Your task to perform on an android device: open device folders in google photos Image 0: 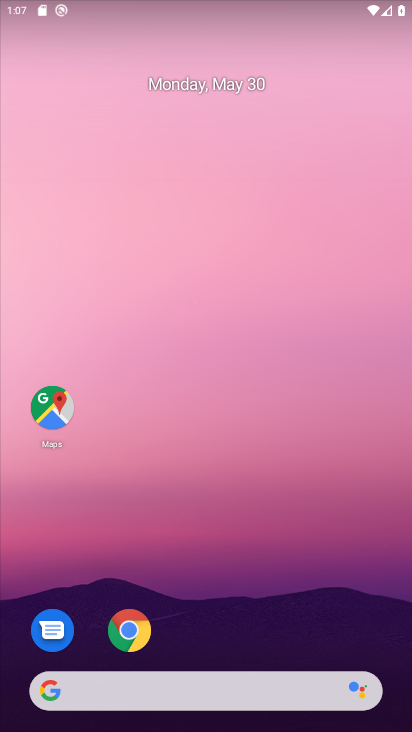
Step 0: press home button
Your task to perform on an android device: open device folders in google photos Image 1: 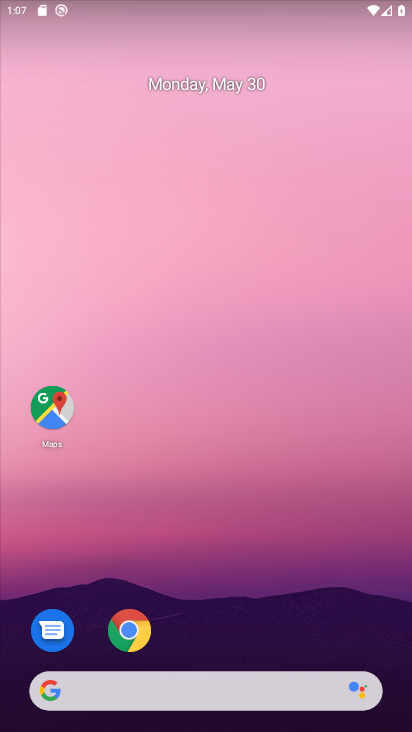
Step 1: drag from (168, 692) to (321, 260)
Your task to perform on an android device: open device folders in google photos Image 2: 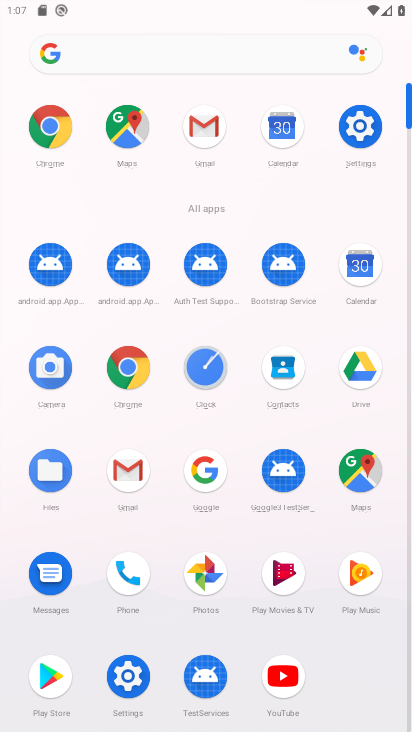
Step 2: click (211, 572)
Your task to perform on an android device: open device folders in google photos Image 3: 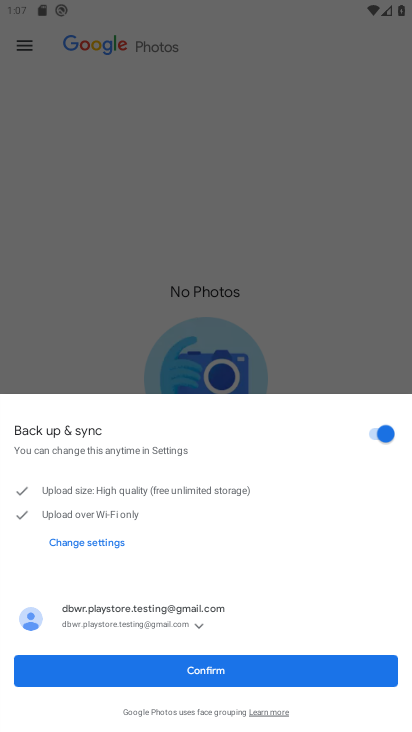
Step 3: click (217, 668)
Your task to perform on an android device: open device folders in google photos Image 4: 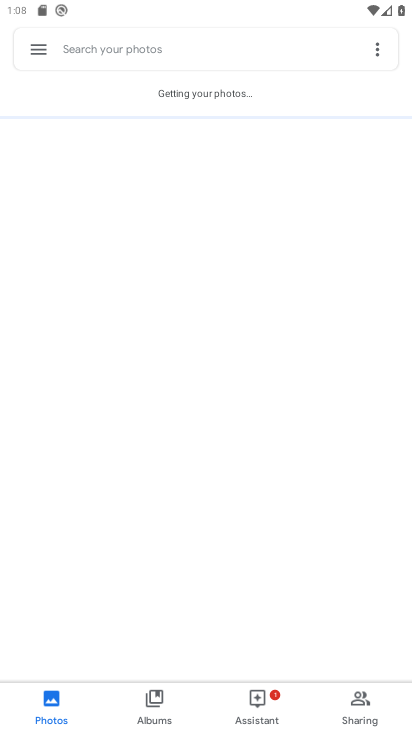
Step 4: click (45, 50)
Your task to perform on an android device: open device folders in google photos Image 5: 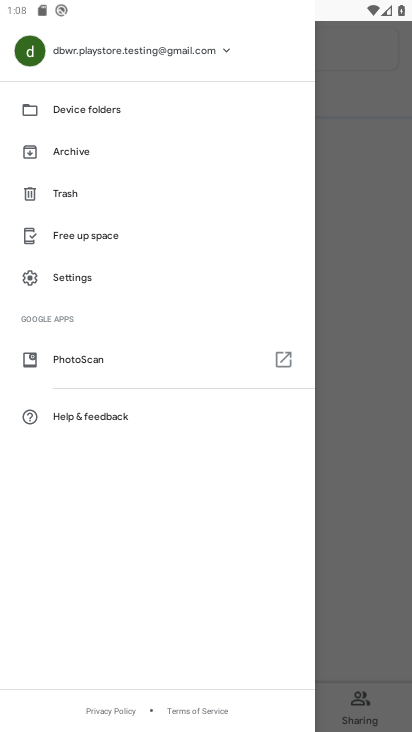
Step 5: click (104, 109)
Your task to perform on an android device: open device folders in google photos Image 6: 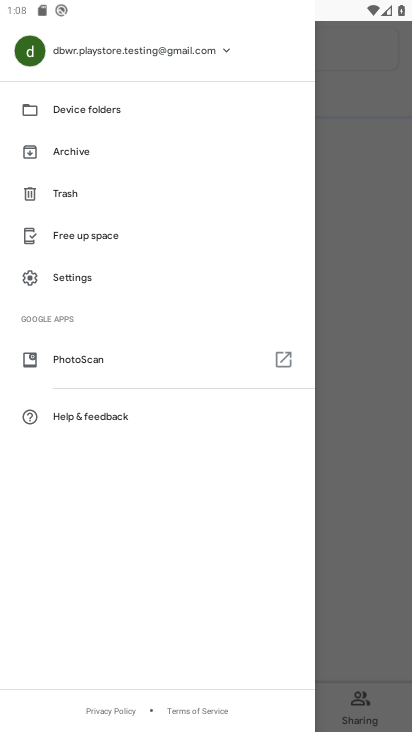
Step 6: click (91, 108)
Your task to perform on an android device: open device folders in google photos Image 7: 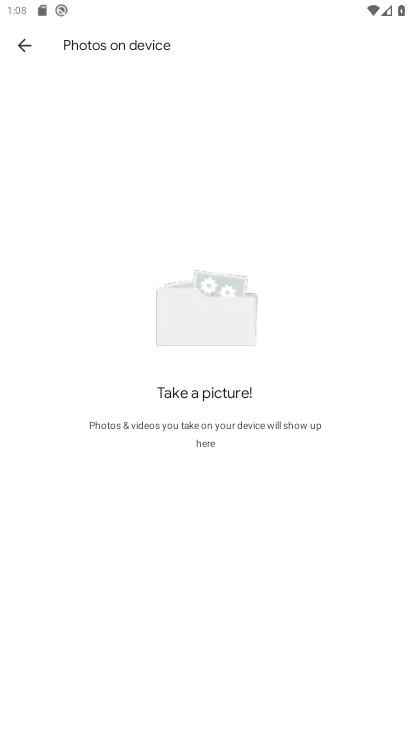
Step 7: task complete